Your task to perform on an android device: Open calendar and show me the third week of next month Image 0: 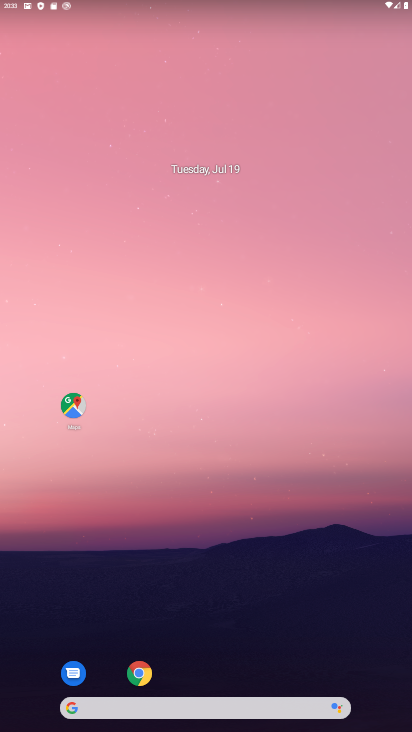
Step 0: drag from (185, 641) to (199, 73)
Your task to perform on an android device: Open calendar and show me the third week of next month Image 1: 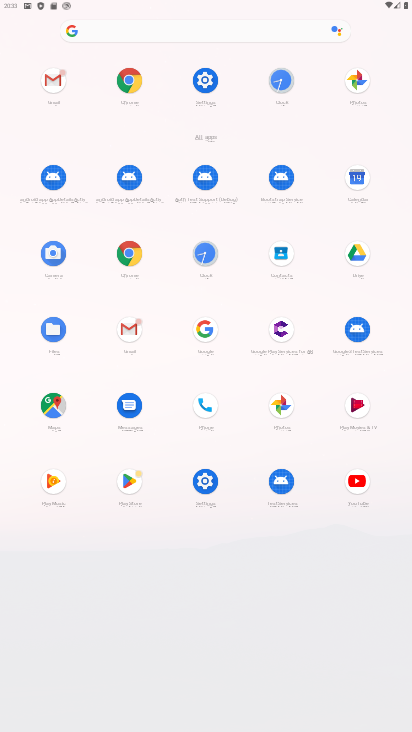
Step 1: click (355, 175)
Your task to perform on an android device: Open calendar and show me the third week of next month Image 2: 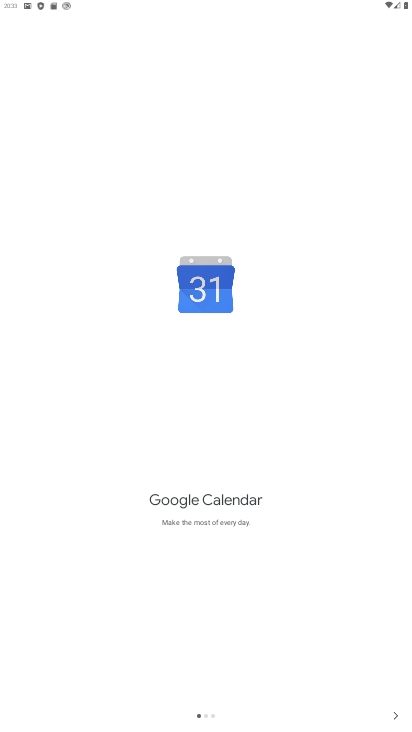
Step 2: click (392, 713)
Your task to perform on an android device: Open calendar and show me the third week of next month Image 3: 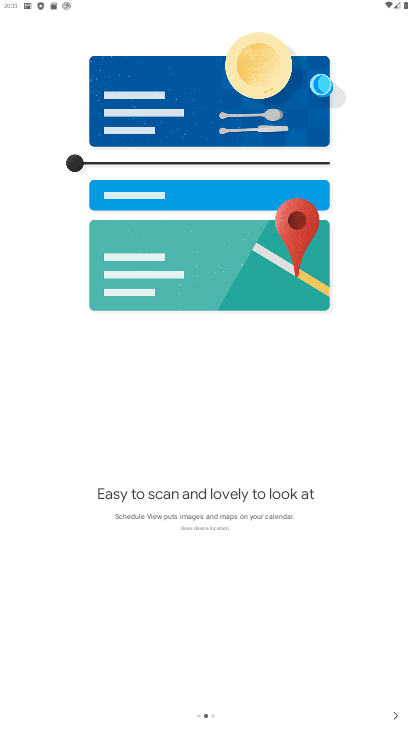
Step 3: click (391, 712)
Your task to perform on an android device: Open calendar and show me the third week of next month Image 4: 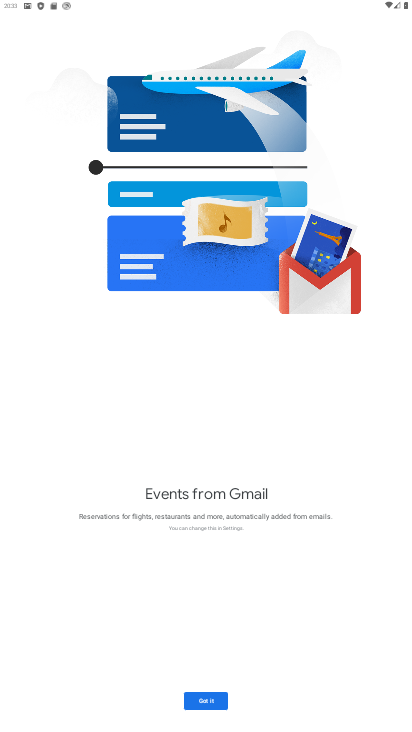
Step 4: click (213, 703)
Your task to perform on an android device: Open calendar and show me the third week of next month Image 5: 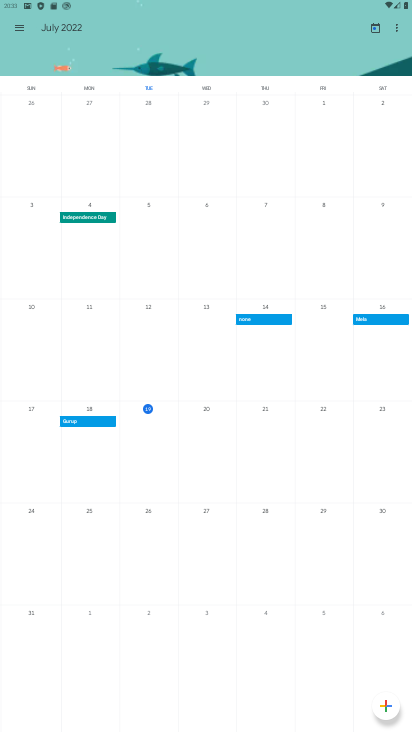
Step 5: drag from (271, 252) to (13, 168)
Your task to perform on an android device: Open calendar and show me the third week of next month Image 6: 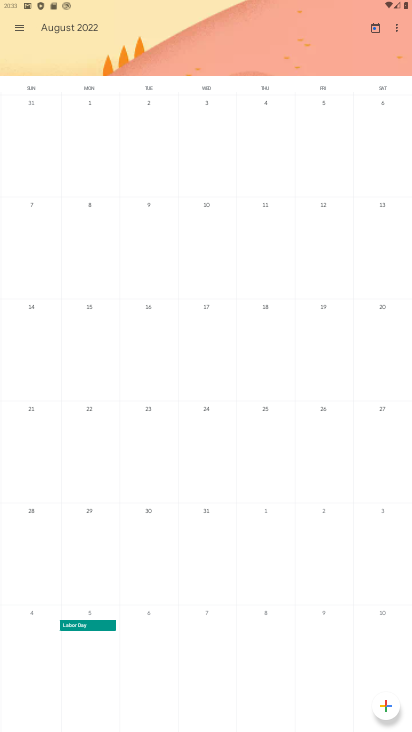
Step 6: click (18, 28)
Your task to perform on an android device: Open calendar and show me the third week of next month Image 7: 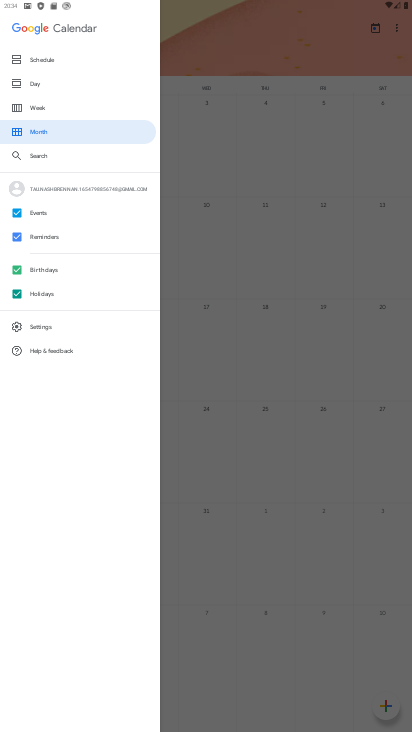
Step 7: click (56, 112)
Your task to perform on an android device: Open calendar and show me the third week of next month Image 8: 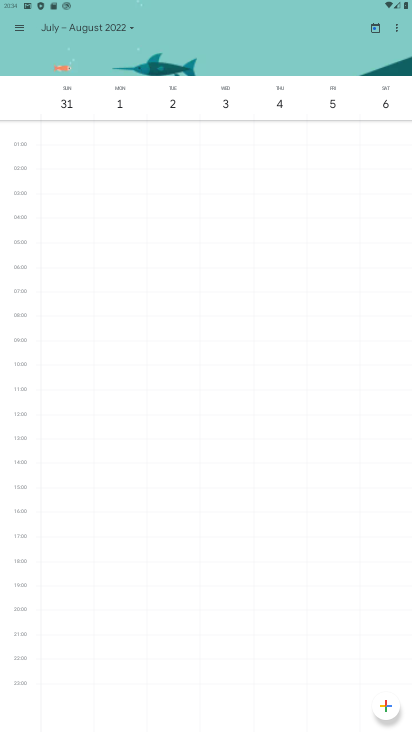
Step 8: task complete